Your task to perform on an android device: Open display settings Image 0: 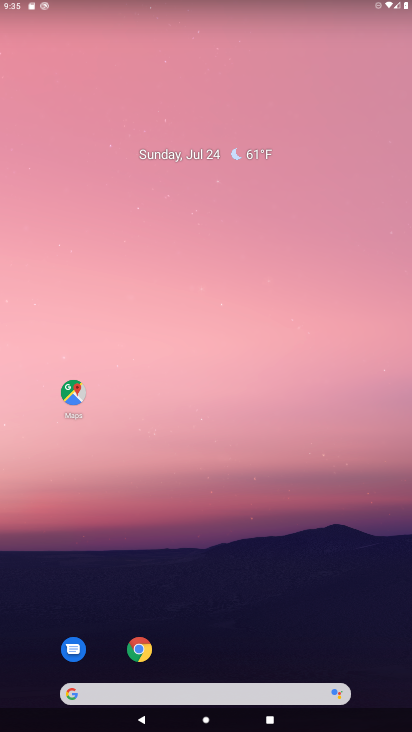
Step 0: drag from (309, 618) to (267, 92)
Your task to perform on an android device: Open display settings Image 1: 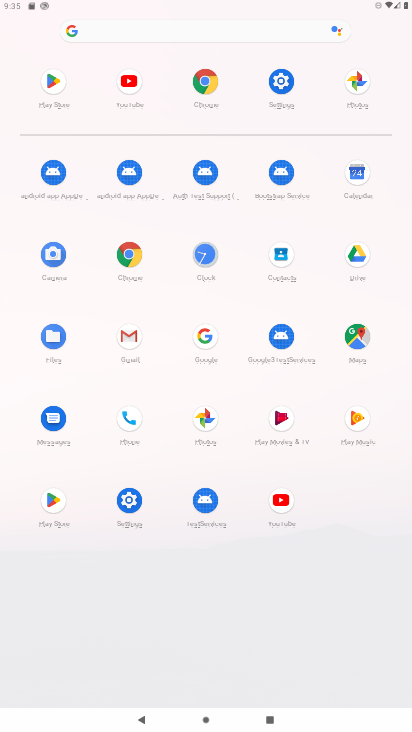
Step 1: click (283, 90)
Your task to perform on an android device: Open display settings Image 2: 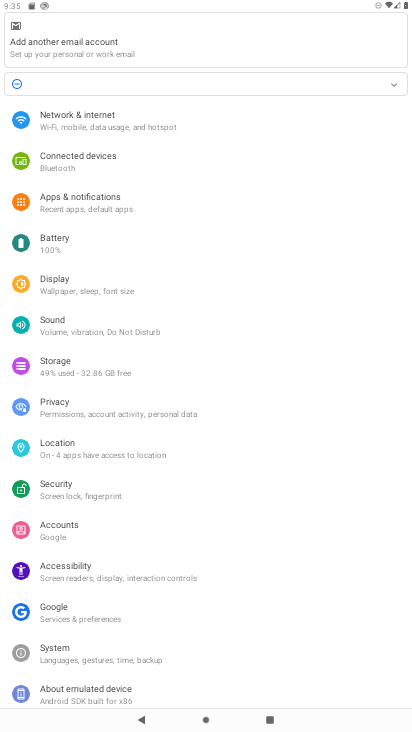
Step 2: click (68, 289)
Your task to perform on an android device: Open display settings Image 3: 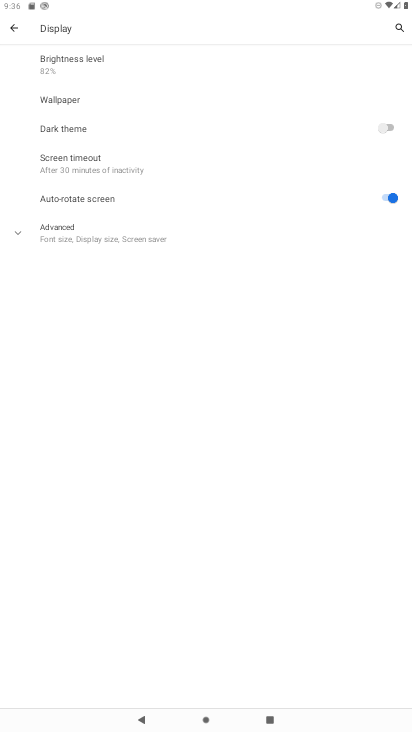
Step 3: task complete